Your task to perform on an android device: turn on notifications settings in the gmail app Image 0: 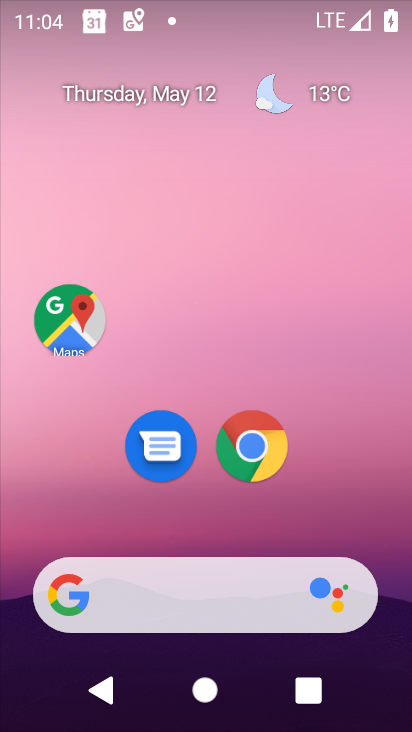
Step 0: drag from (221, 592) to (403, 426)
Your task to perform on an android device: turn on notifications settings in the gmail app Image 1: 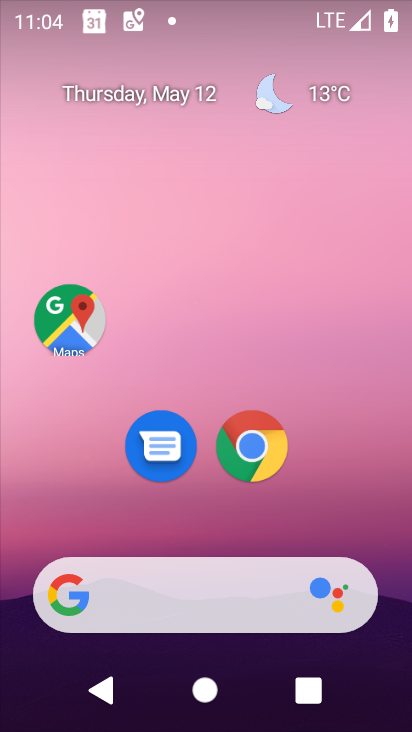
Step 1: click (362, 460)
Your task to perform on an android device: turn on notifications settings in the gmail app Image 2: 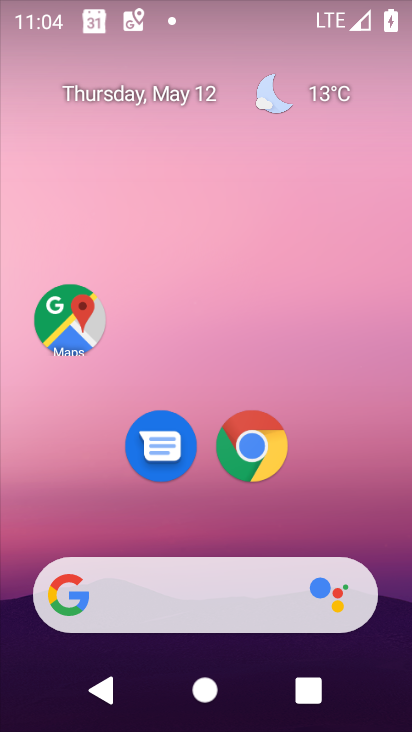
Step 2: drag from (338, 586) to (304, 22)
Your task to perform on an android device: turn on notifications settings in the gmail app Image 3: 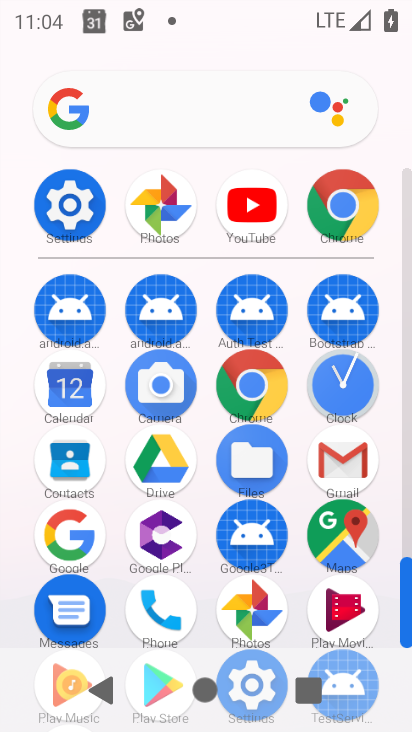
Step 3: click (358, 465)
Your task to perform on an android device: turn on notifications settings in the gmail app Image 4: 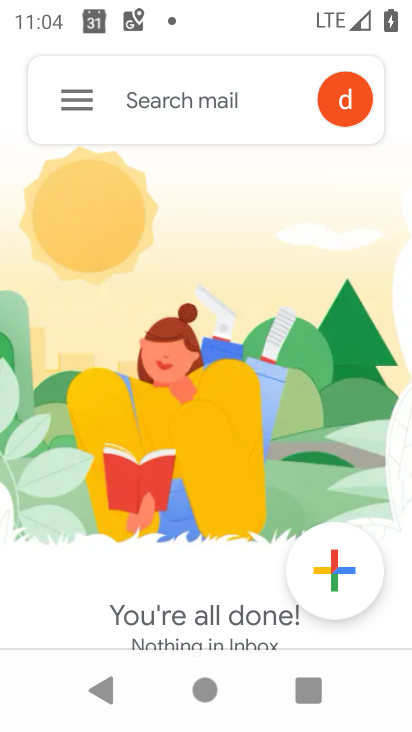
Step 4: click (67, 107)
Your task to perform on an android device: turn on notifications settings in the gmail app Image 5: 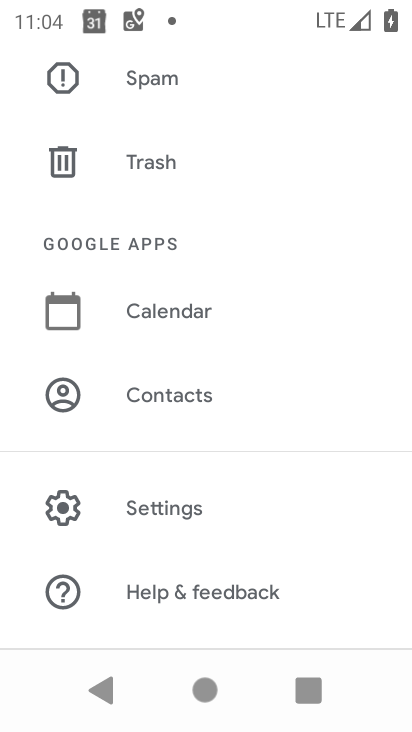
Step 5: click (191, 513)
Your task to perform on an android device: turn on notifications settings in the gmail app Image 6: 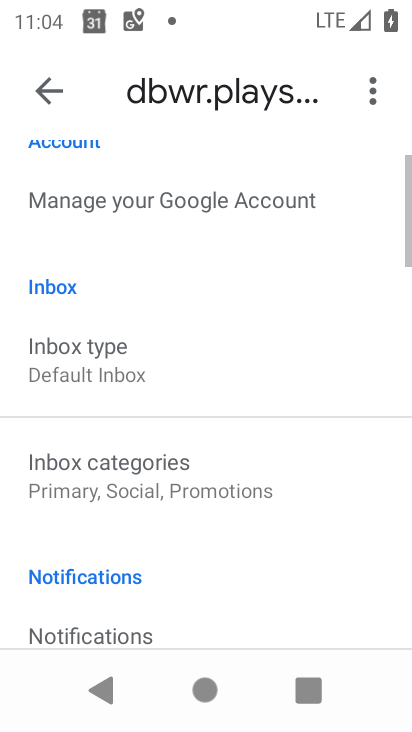
Step 6: drag from (191, 513) to (161, 188)
Your task to perform on an android device: turn on notifications settings in the gmail app Image 7: 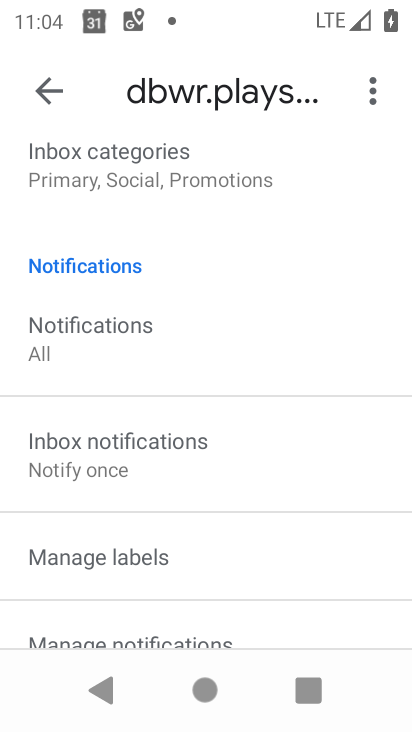
Step 7: drag from (223, 569) to (254, 385)
Your task to perform on an android device: turn on notifications settings in the gmail app Image 8: 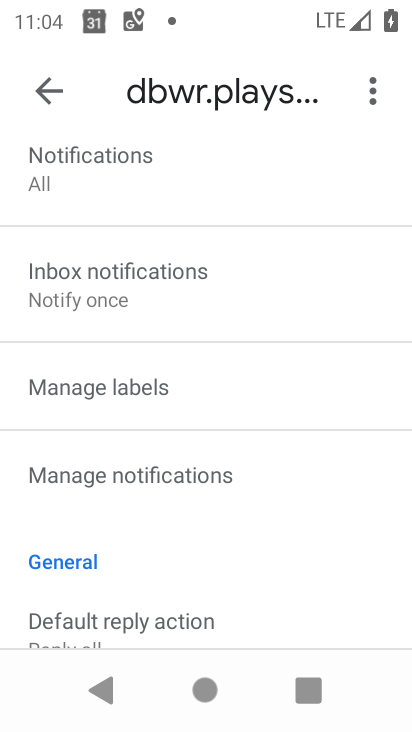
Step 8: click (189, 474)
Your task to perform on an android device: turn on notifications settings in the gmail app Image 9: 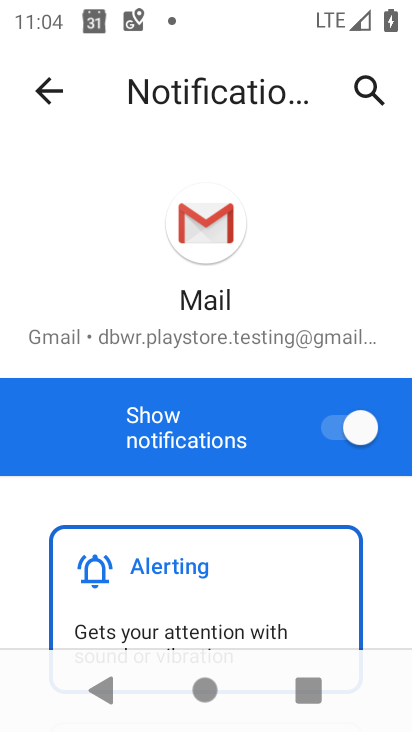
Step 9: task complete